Your task to perform on an android device: check google app version Image 0: 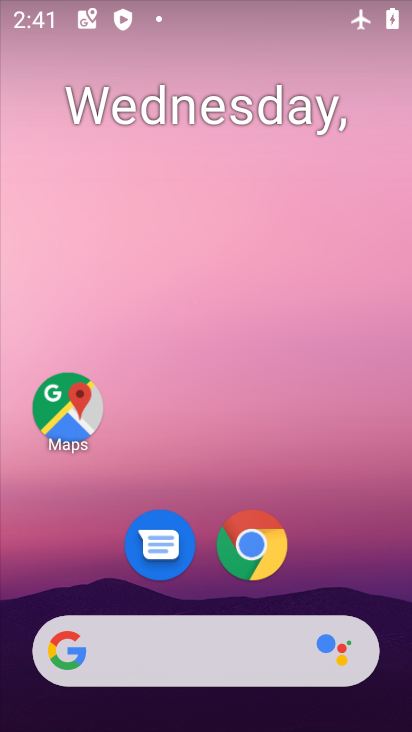
Step 0: drag from (327, 510) to (364, 131)
Your task to perform on an android device: check google app version Image 1: 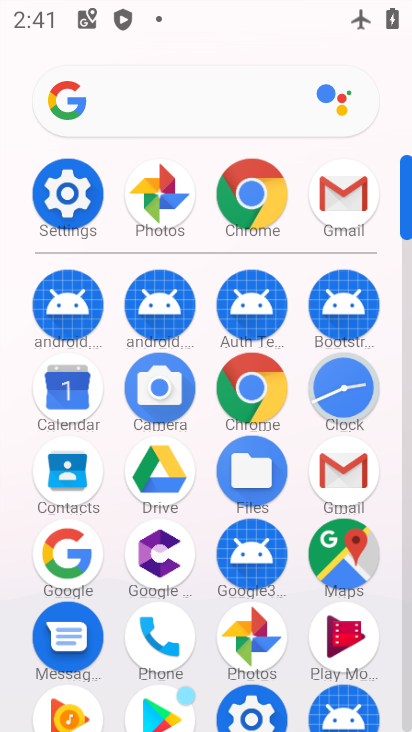
Step 1: click (74, 554)
Your task to perform on an android device: check google app version Image 2: 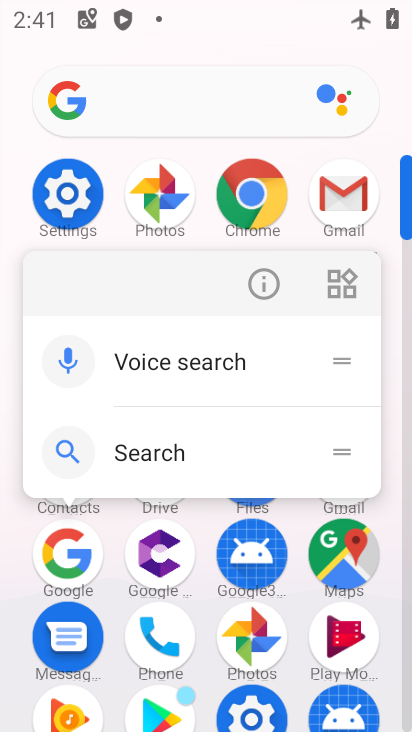
Step 2: click (265, 273)
Your task to perform on an android device: check google app version Image 3: 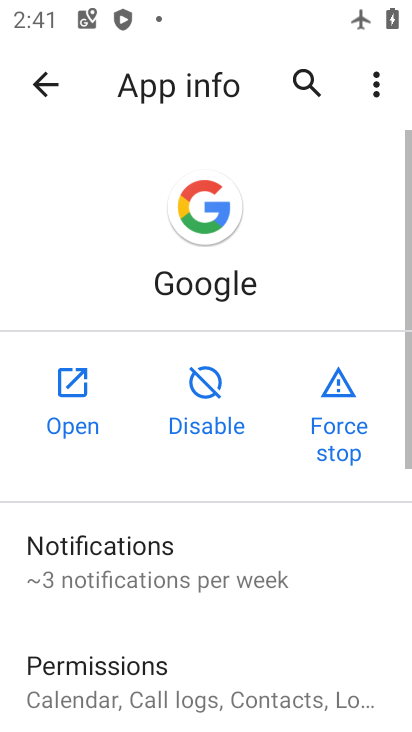
Step 3: drag from (240, 591) to (255, 168)
Your task to perform on an android device: check google app version Image 4: 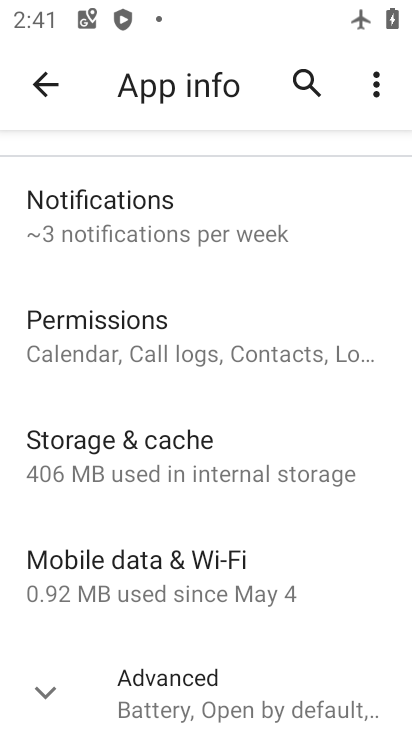
Step 4: drag from (208, 647) to (234, 227)
Your task to perform on an android device: check google app version Image 5: 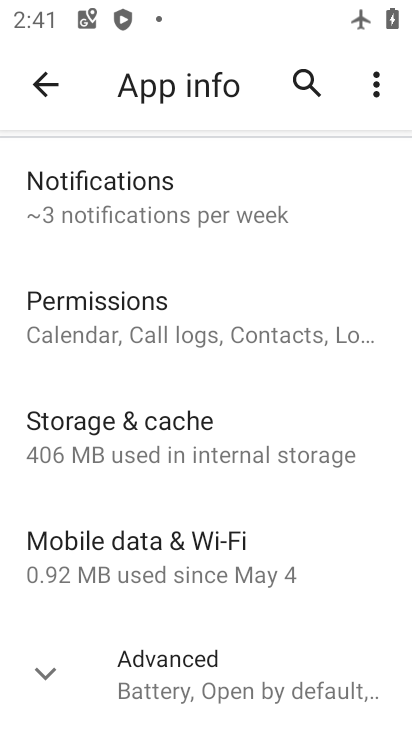
Step 5: click (164, 685)
Your task to perform on an android device: check google app version Image 6: 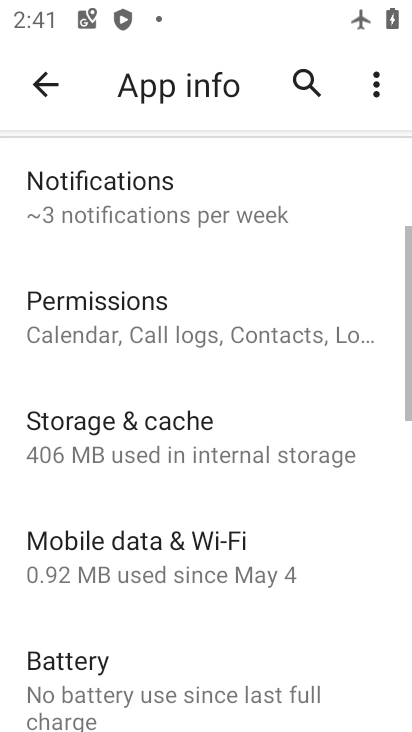
Step 6: task complete